Your task to perform on an android device: turn pop-ups off in chrome Image 0: 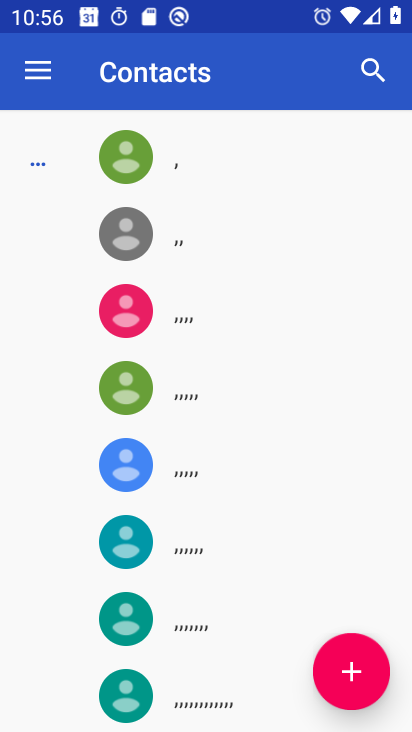
Step 0: press home button
Your task to perform on an android device: turn pop-ups off in chrome Image 1: 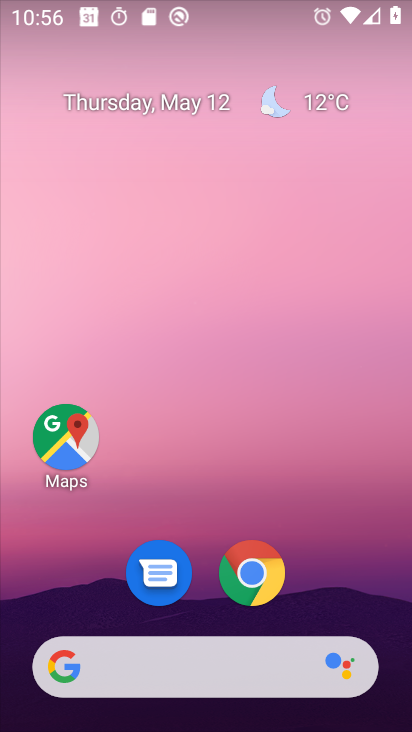
Step 1: click (250, 571)
Your task to perform on an android device: turn pop-ups off in chrome Image 2: 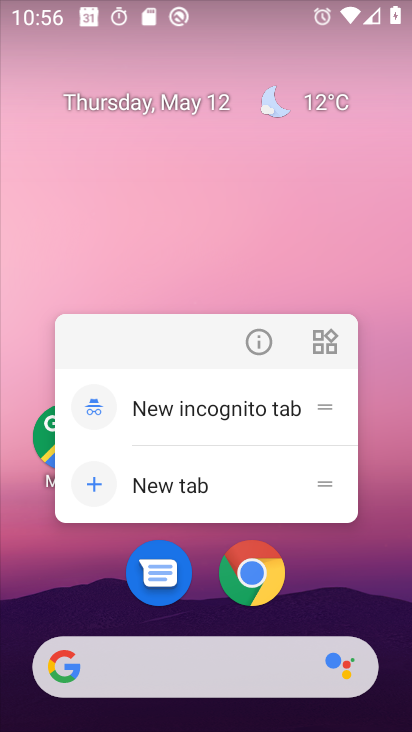
Step 2: click (256, 338)
Your task to perform on an android device: turn pop-ups off in chrome Image 3: 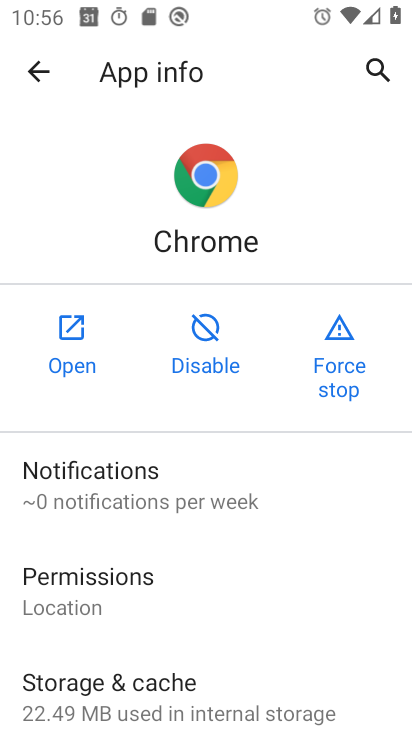
Step 3: drag from (300, 613) to (302, 398)
Your task to perform on an android device: turn pop-ups off in chrome Image 4: 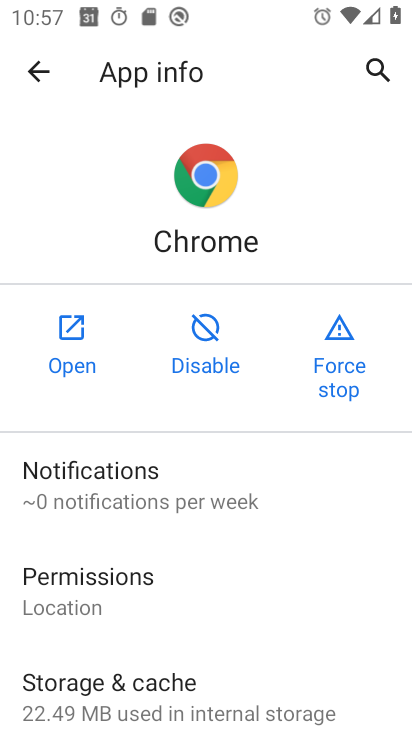
Step 4: drag from (377, 712) to (373, 377)
Your task to perform on an android device: turn pop-ups off in chrome Image 5: 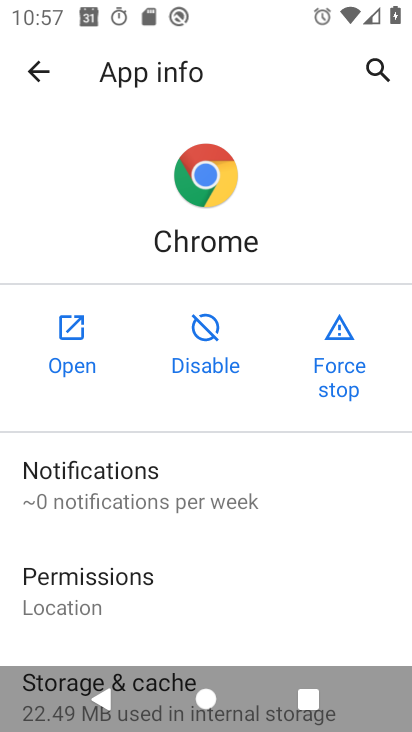
Step 5: drag from (365, 633) to (371, 387)
Your task to perform on an android device: turn pop-ups off in chrome Image 6: 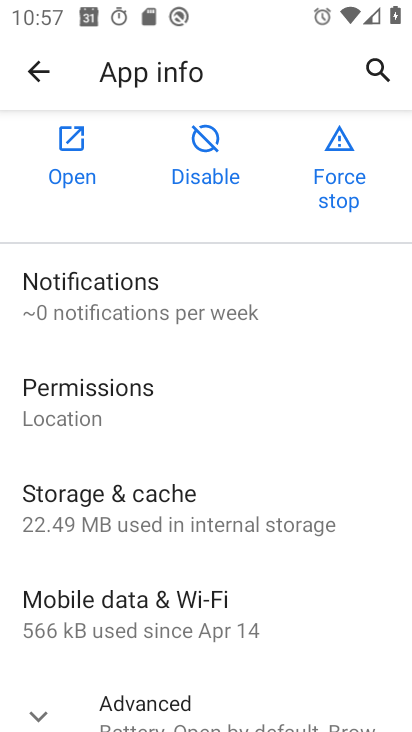
Step 6: drag from (381, 650) to (364, 316)
Your task to perform on an android device: turn pop-ups off in chrome Image 7: 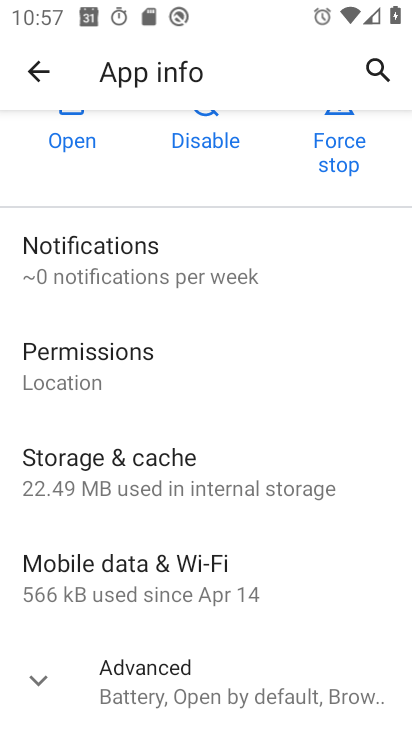
Step 7: drag from (324, 537) to (321, 340)
Your task to perform on an android device: turn pop-ups off in chrome Image 8: 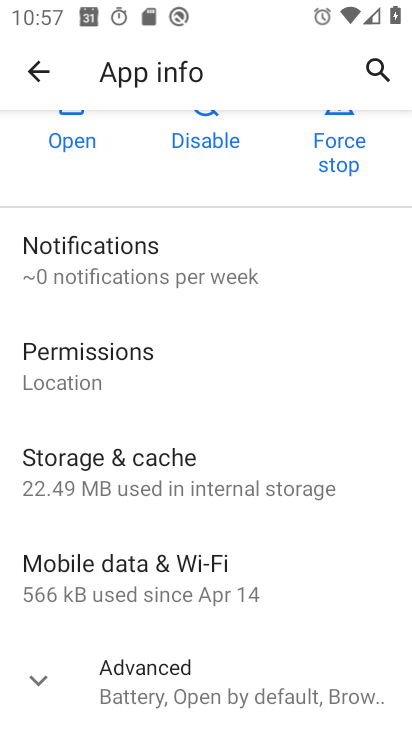
Step 8: click (43, 678)
Your task to perform on an android device: turn pop-ups off in chrome Image 9: 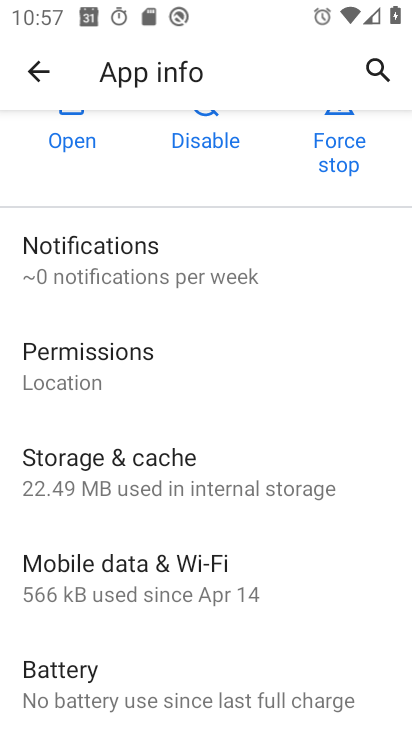
Step 9: drag from (280, 678) to (300, 399)
Your task to perform on an android device: turn pop-ups off in chrome Image 10: 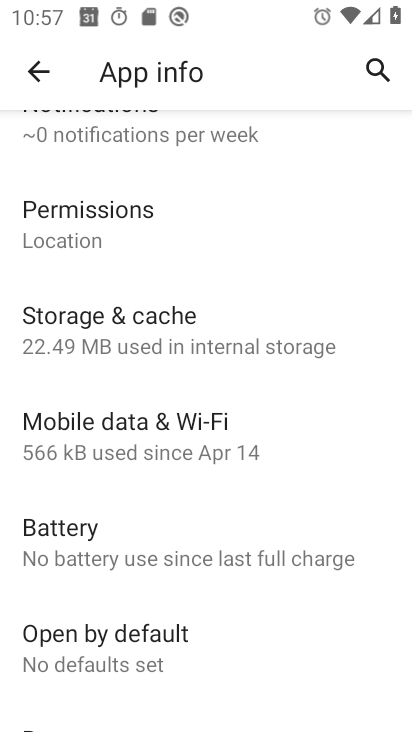
Step 10: drag from (332, 667) to (328, 367)
Your task to perform on an android device: turn pop-ups off in chrome Image 11: 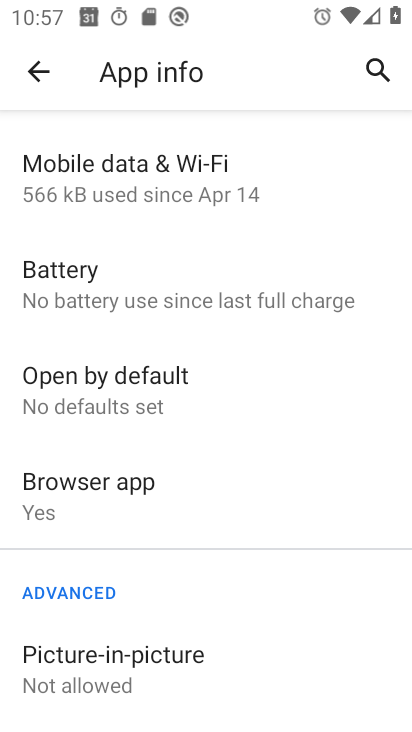
Step 11: click (93, 667)
Your task to perform on an android device: turn pop-ups off in chrome Image 12: 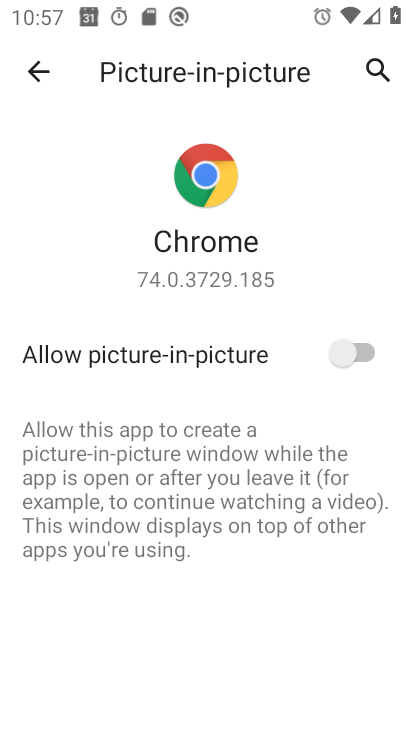
Step 12: click (49, 73)
Your task to perform on an android device: turn pop-ups off in chrome Image 13: 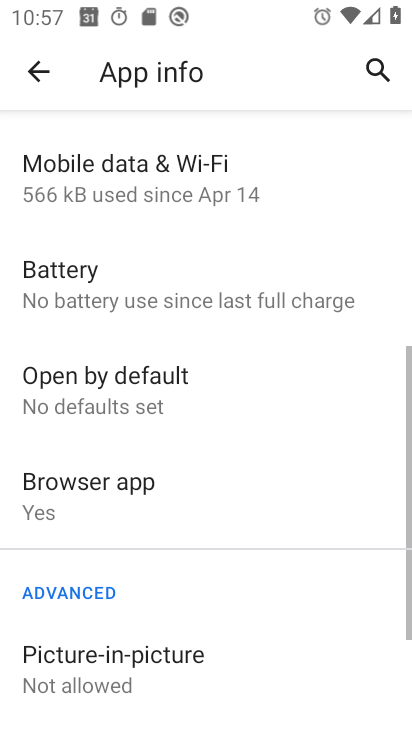
Step 13: click (49, 73)
Your task to perform on an android device: turn pop-ups off in chrome Image 14: 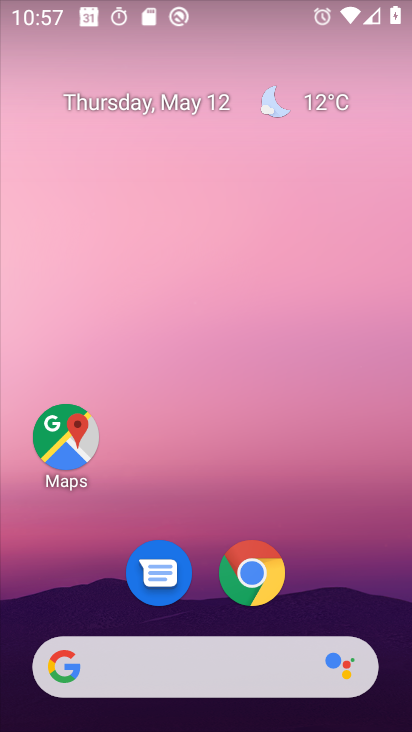
Step 14: click (264, 578)
Your task to perform on an android device: turn pop-ups off in chrome Image 15: 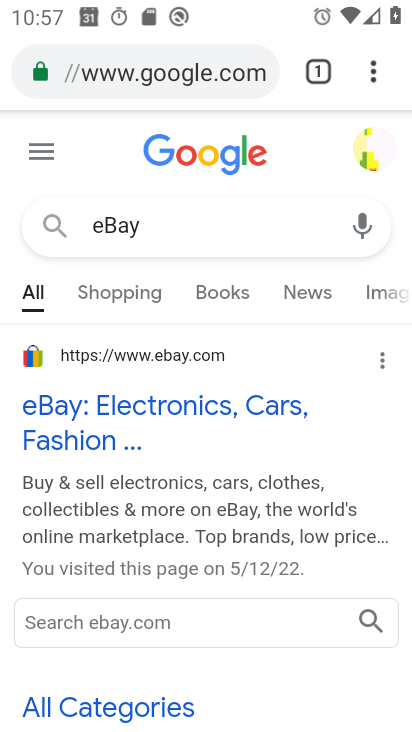
Step 15: click (373, 70)
Your task to perform on an android device: turn pop-ups off in chrome Image 16: 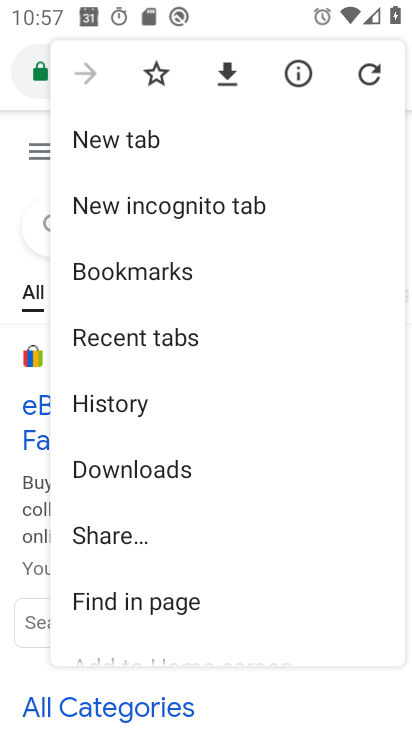
Step 16: drag from (289, 619) to (258, 289)
Your task to perform on an android device: turn pop-ups off in chrome Image 17: 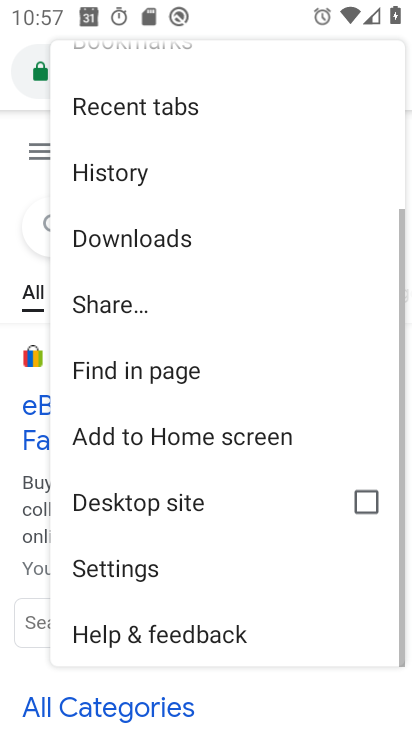
Step 17: click (154, 571)
Your task to perform on an android device: turn pop-ups off in chrome Image 18: 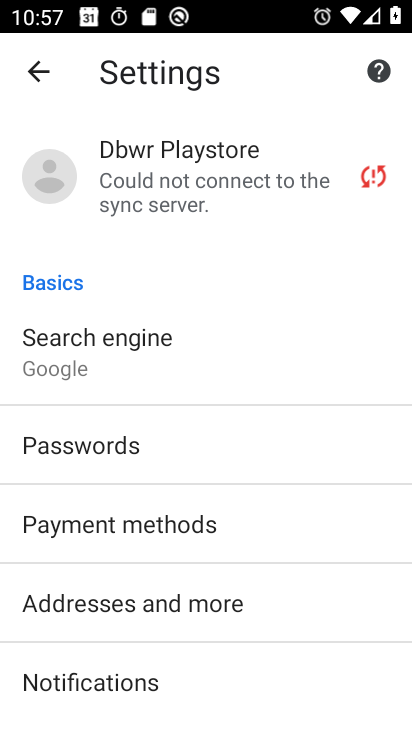
Step 18: drag from (361, 620) to (355, 381)
Your task to perform on an android device: turn pop-ups off in chrome Image 19: 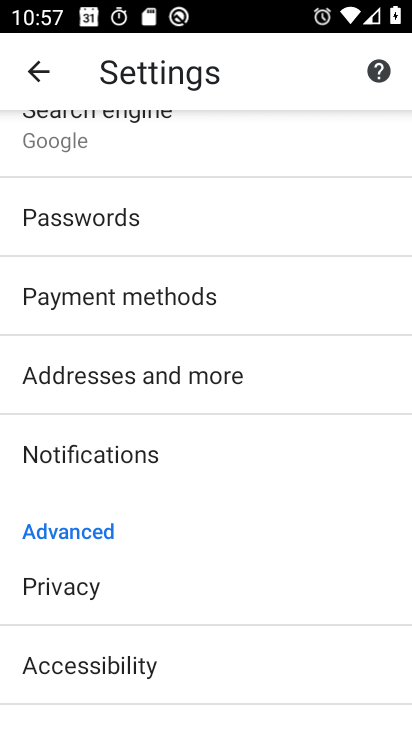
Step 19: drag from (312, 676) to (309, 432)
Your task to perform on an android device: turn pop-ups off in chrome Image 20: 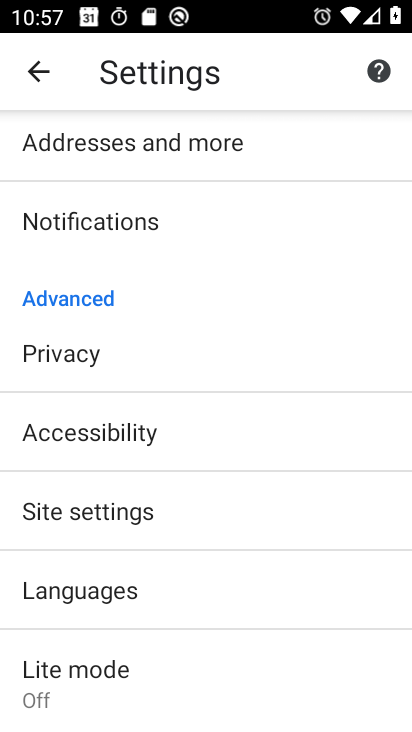
Step 20: drag from (290, 695) to (293, 458)
Your task to perform on an android device: turn pop-ups off in chrome Image 21: 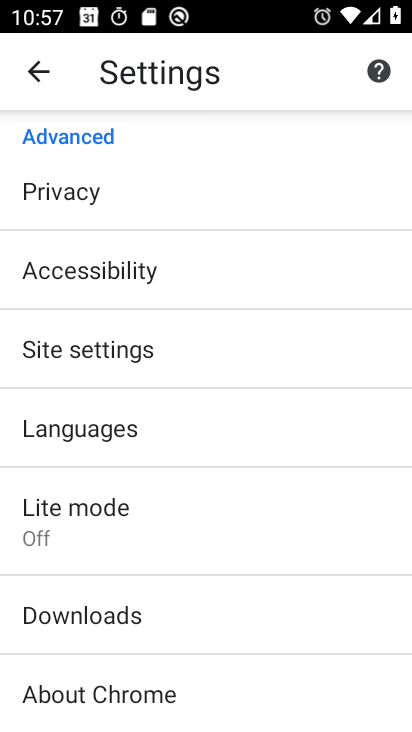
Step 21: drag from (295, 715) to (288, 461)
Your task to perform on an android device: turn pop-ups off in chrome Image 22: 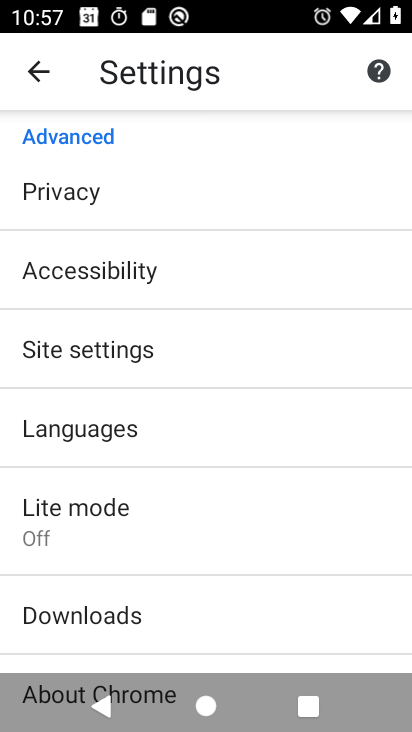
Step 22: drag from (276, 342) to (298, 628)
Your task to perform on an android device: turn pop-ups off in chrome Image 23: 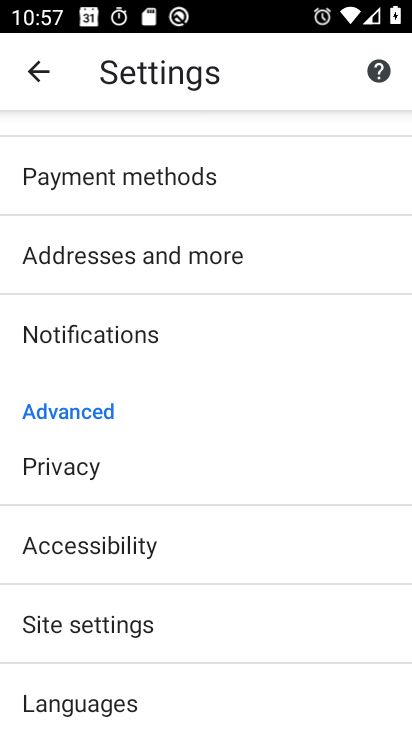
Step 23: drag from (297, 638) to (281, 682)
Your task to perform on an android device: turn pop-ups off in chrome Image 24: 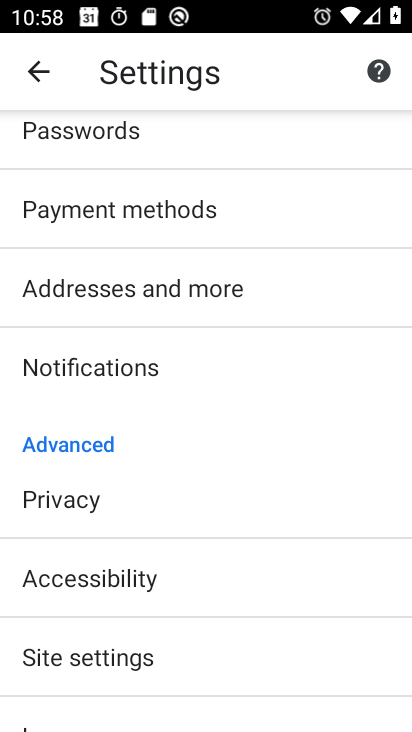
Step 24: click (124, 657)
Your task to perform on an android device: turn pop-ups off in chrome Image 25: 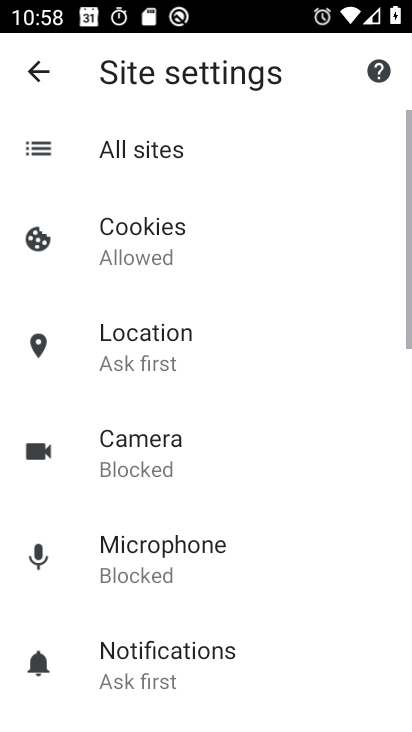
Step 25: drag from (249, 671) to (249, 412)
Your task to perform on an android device: turn pop-ups off in chrome Image 26: 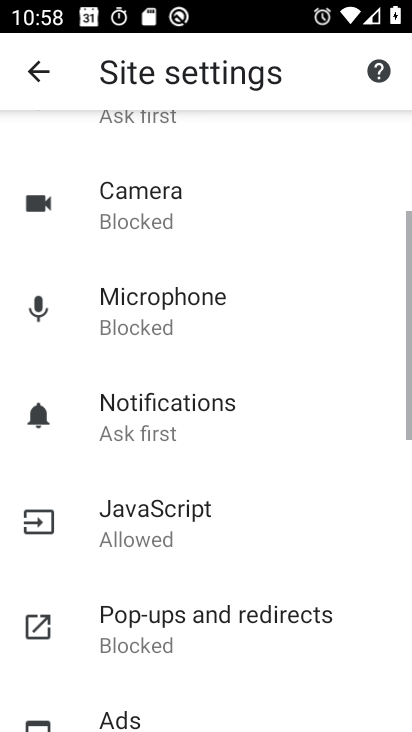
Step 26: click (177, 632)
Your task to perform on an android device: turn pop-ups off in chrome Image 27: 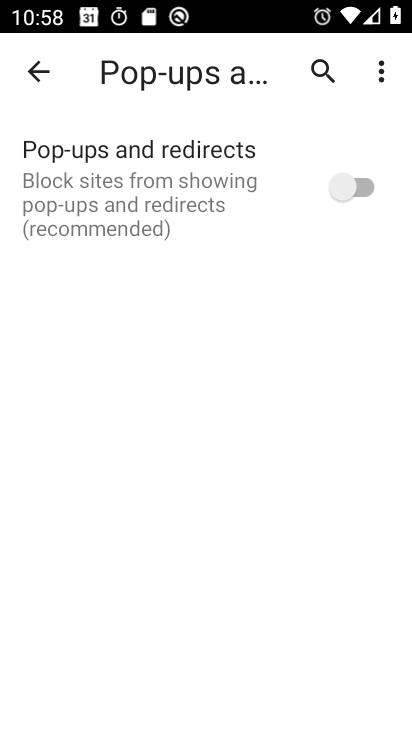
Step 27: task complete